Your task to perform on an android device: open wifi settings Image 0: 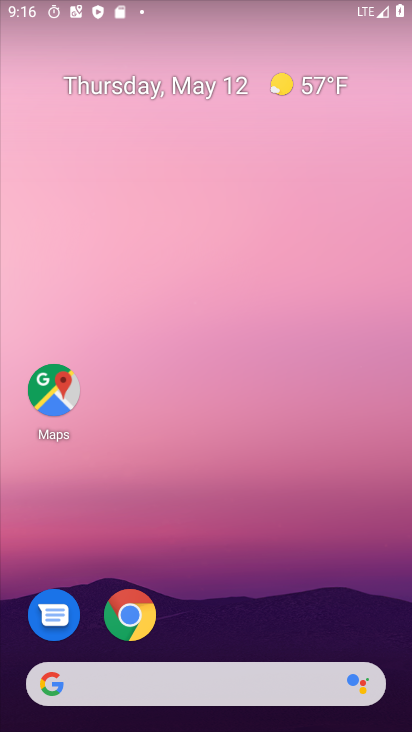
Step 0: drag from (231, 541) to (227, 27)
Your task to perform on an android device: open wifi settings Image 1: 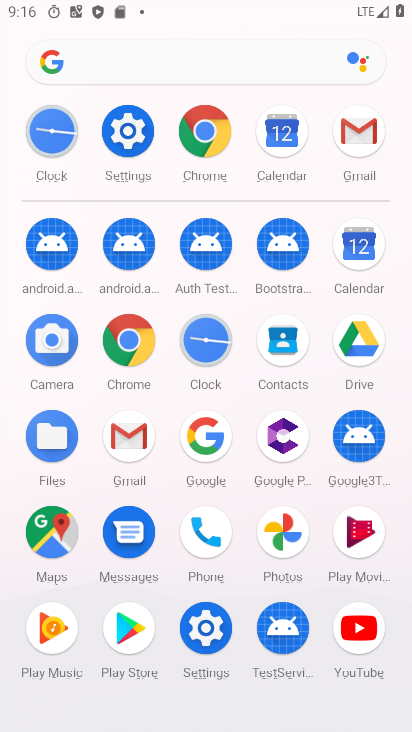
Step 1: click (206, 627)
Your task to perform on an android device: open wifi settings Image 2: 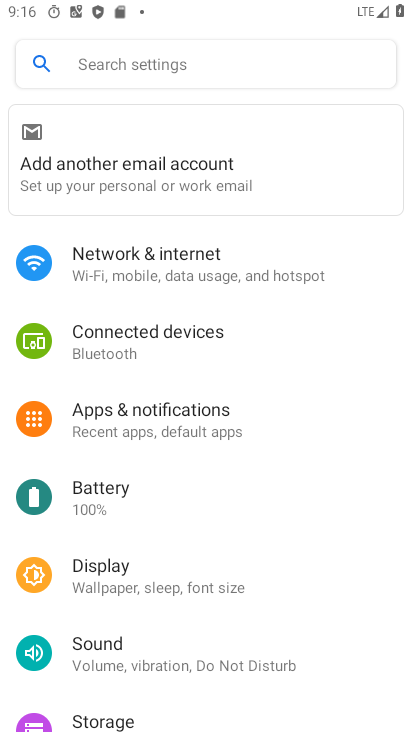
Step 2: click (137, 258)
Your task to perform on an android device: open wifi settings Image 3: 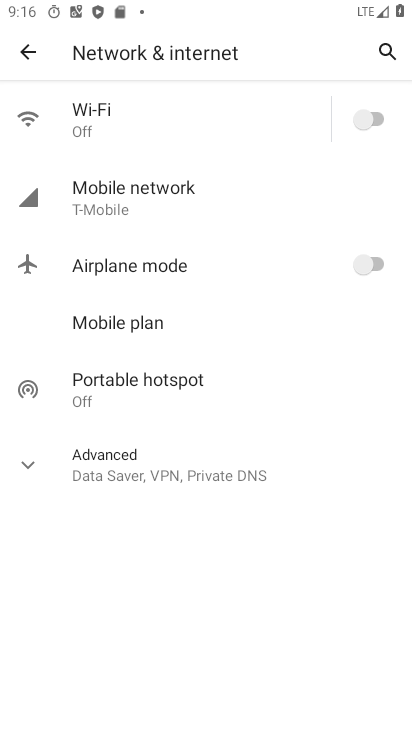
Step 3: click (124, 124)
Your task to perform on an android device: open wifi settings Image 4: 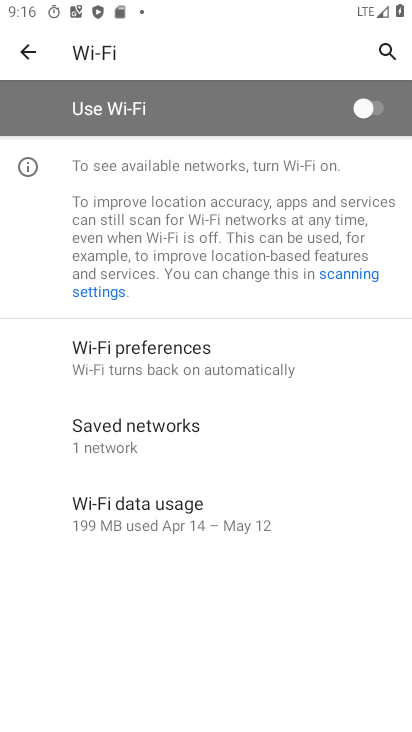
Step 4: task complete